Your task to perform on an android device: snooze an email in the gmail app Image 0: 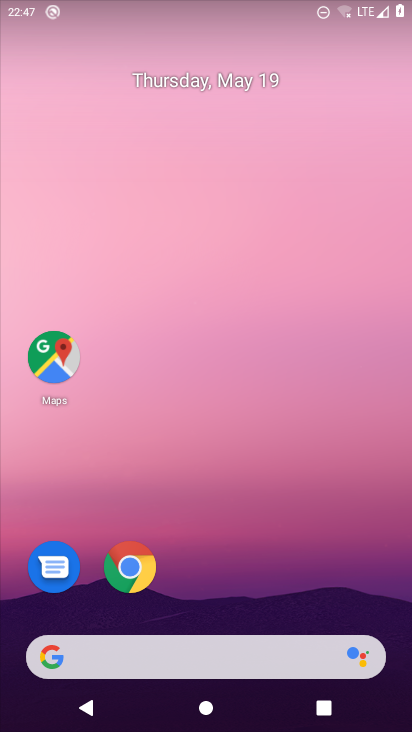
Step 0: press home button
Your task to perform on an android device: snooze an email in the gmail app Image 1: 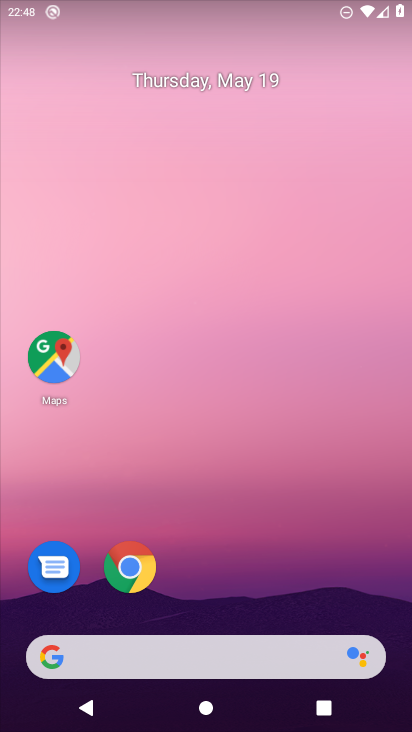
Step 1: drag from (219, 618) to (234, 54)
Your task to perform on an android device: snooze an email in the gmail app Image 2: 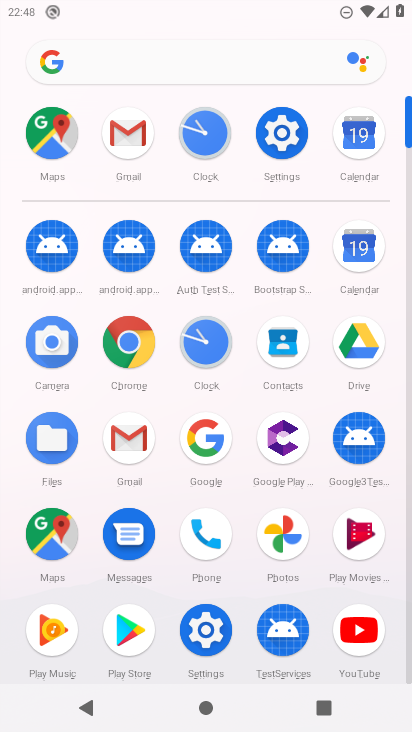
Step 2: click (126, 120)
Your task to perform on an android device: snooze an email in the gmail app Image 3: 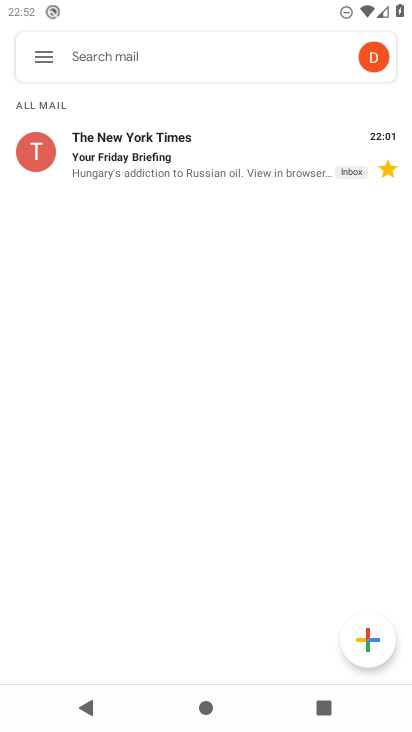
Step 3: click (29, 143)
Your task to perform on an android device: snooze an email in the gmail app Image 4: 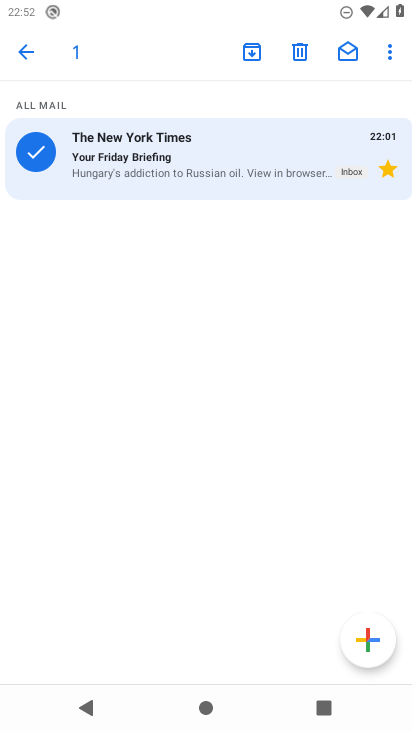
Step 4: click (389, 53)
Your task to perform on an android device: snooze an email in the gmail app Image 5: 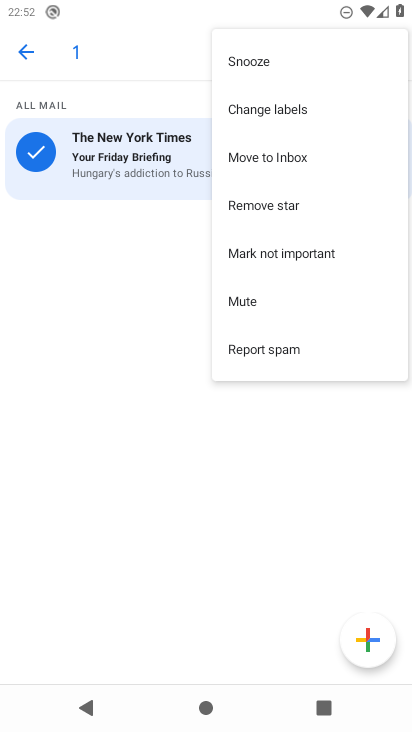
Step 5: click (262, 64)
Your task to perform on an android device: snooze an email in the gmail app Image 6: 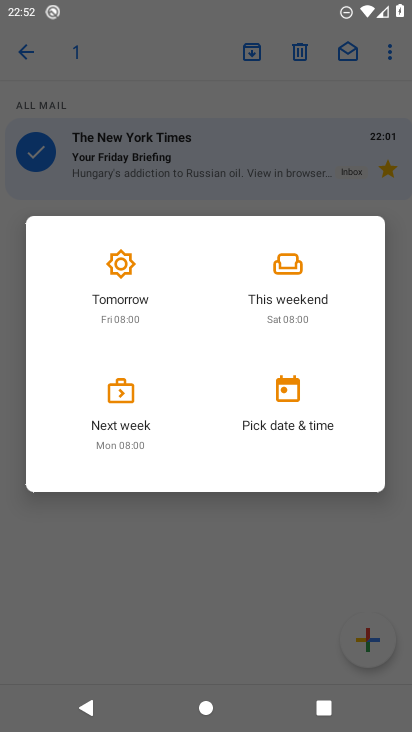
Step 6: click (290, 280)
Your task to perform on an android device: snooze an email in the gmail app Image 7: 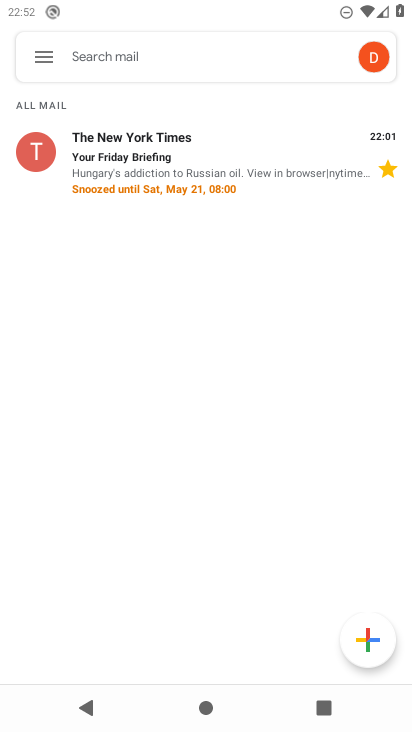
Step 7: task complete